Your task to perform on an android device: Open calendar and show me the fourth week of next month Image 0: 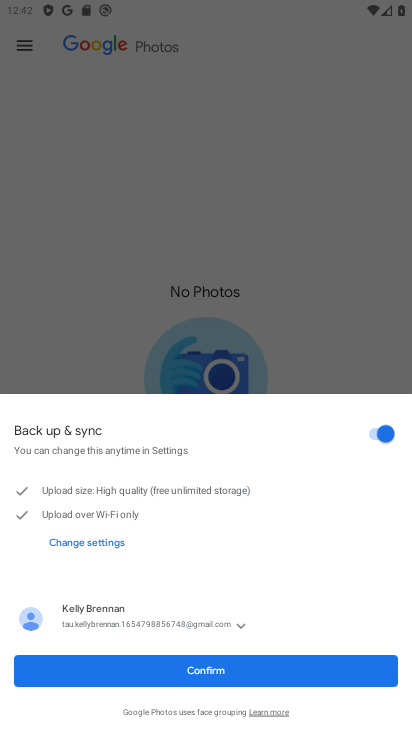
Step 0: press home button
Your task to perform on an android device: Open calendar and show me the fourth week of next month Image 1: 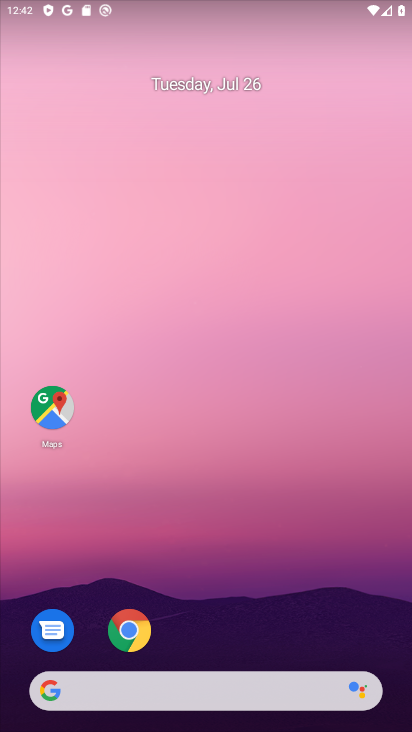
Step 1: drag from (186, 636) to (249, 155)
Your task to perform on an android device: Open calendar and show me the fourth week of next month Image 2: 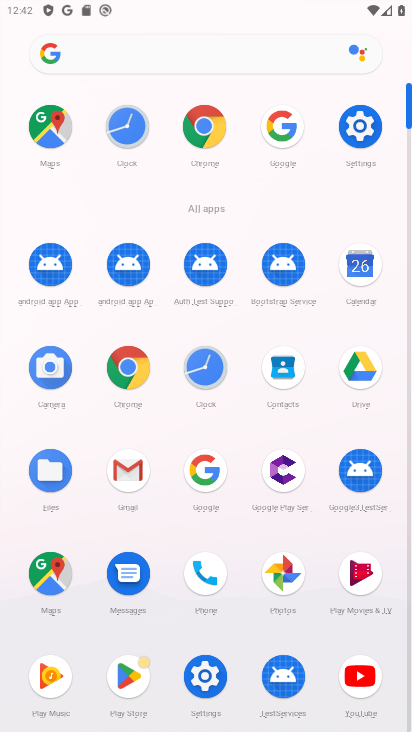
Step 2: click (352, 280)
Your task to perform on an android device: Open calendar and show me the fourth week of next month Image 3: 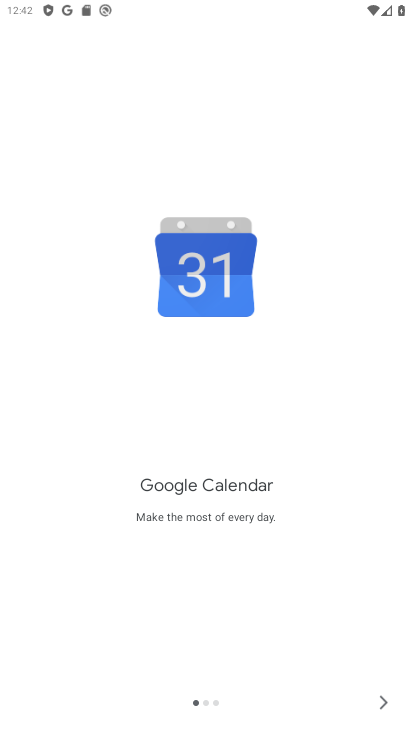
Step 3: click (384, 704)
Your task to perform on an android device: Open calendar and show me the fourth week of next month Image 4: 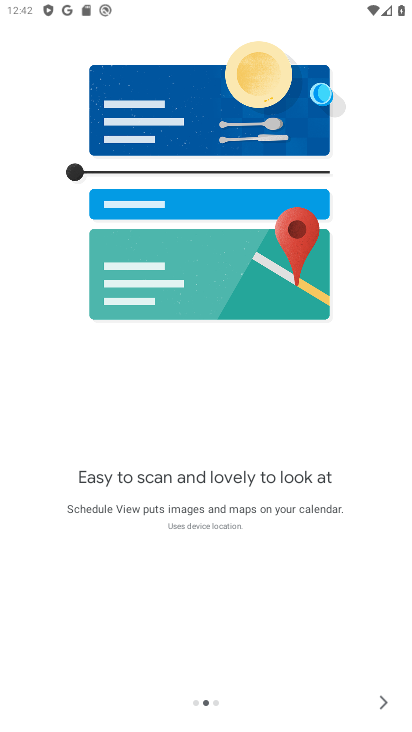
Step 4: click (384, 704)
Your task to perform on an android device: Open calendar and show me the fourth week of next month Image 5: 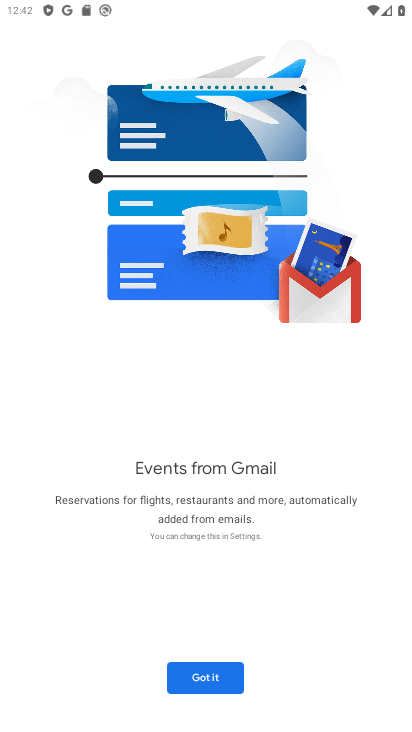
Step 5: click (384, 704)
Your task to perform on an android device: Open calendar and show me the fourth week of next month Image 6: 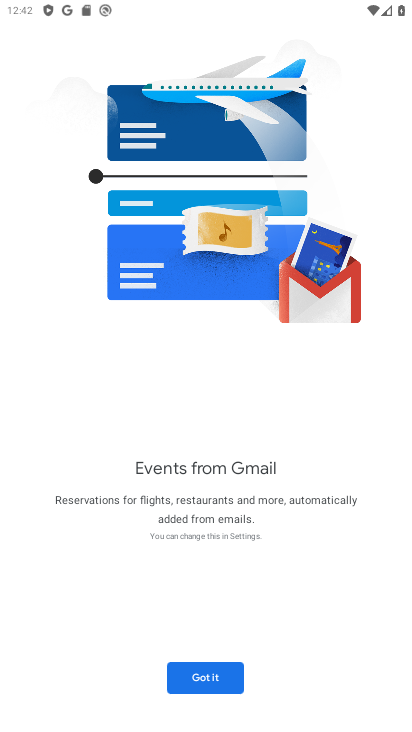
Step 6: click (208, 666)
Your task to perform on an android device: Open calendar and show me the fourth week of next month Image 7: 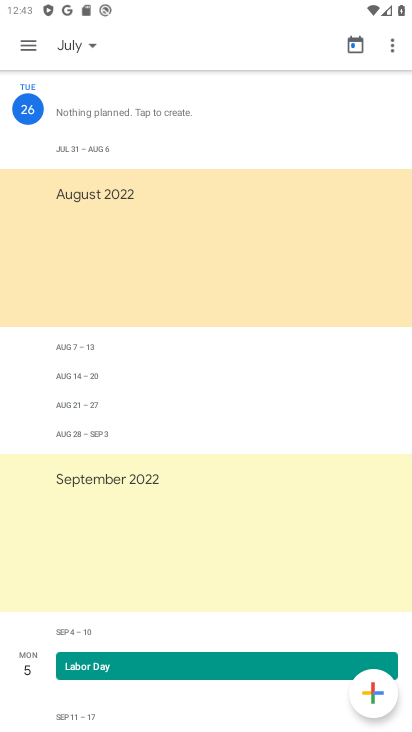
Step 7: click (27, 49)
Your task to perform on an android device: Open calendar and show me the fourth week of next month Image 8: 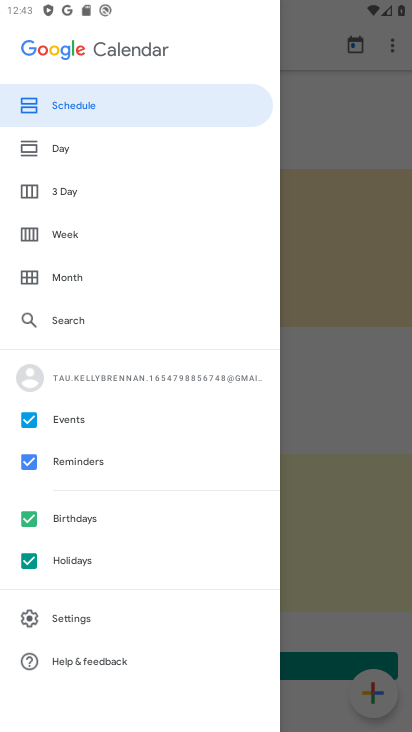
Step 8: click (52, 232)
Your task to perform on an android device: Open calendar and show me the fourth week of next month Image 9: 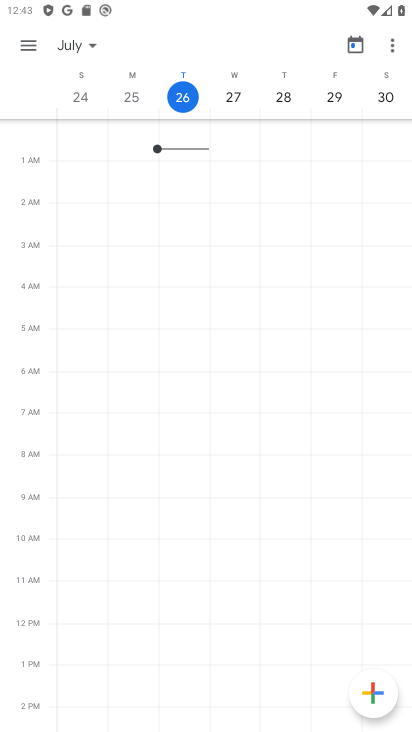
Step 9: click (70, 42)
Your task to perform on an android device: Open calendar and show me the fourth week of next month Image 10: 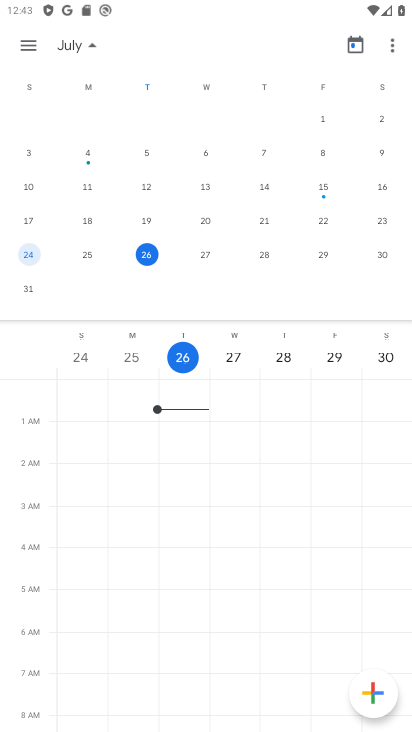
Step 10: click (73, 43)
Your task to perform on an android device: Open calendar and show me the fourth week of next month Image 11: 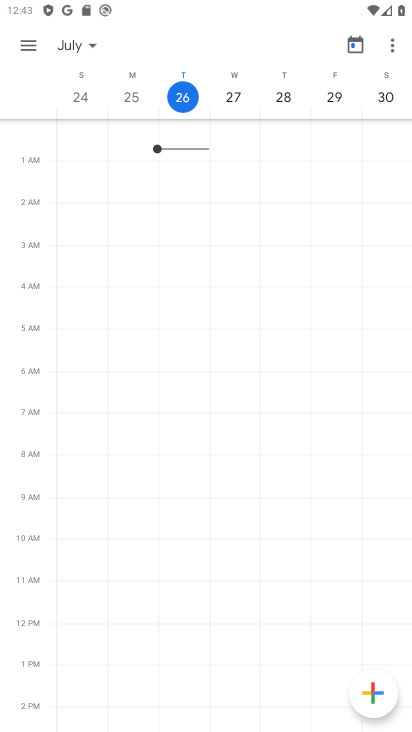
Step 11: click (73, 43)
Your task to perform on an android device: Open calendar and show me the fourth week of next month Image 12: 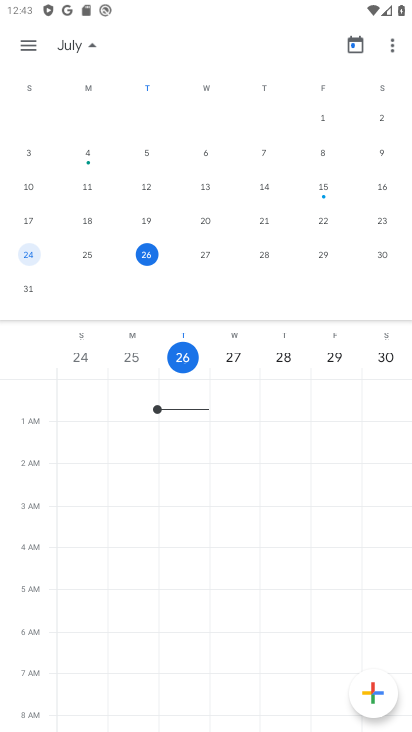
Step 12: drag from (336, 204) to (42, 192)
Your task to perform on an android device: Open calendar and show me the fourth week of next month Image 13: 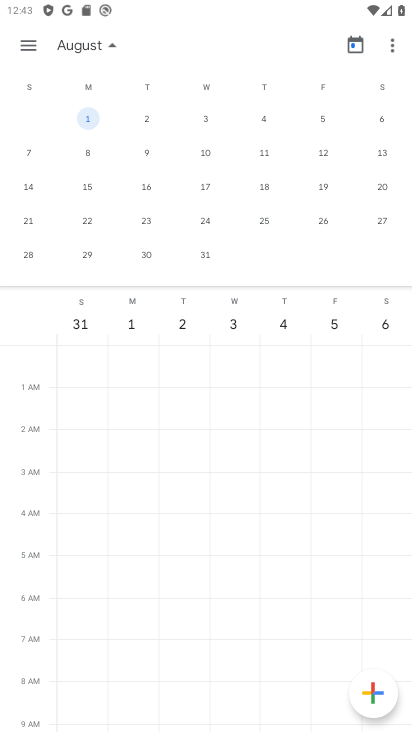
Step 13: click (24, 220)
Your task to perform on an android device: Open calendar and show me the fourth week of next month Image 14: 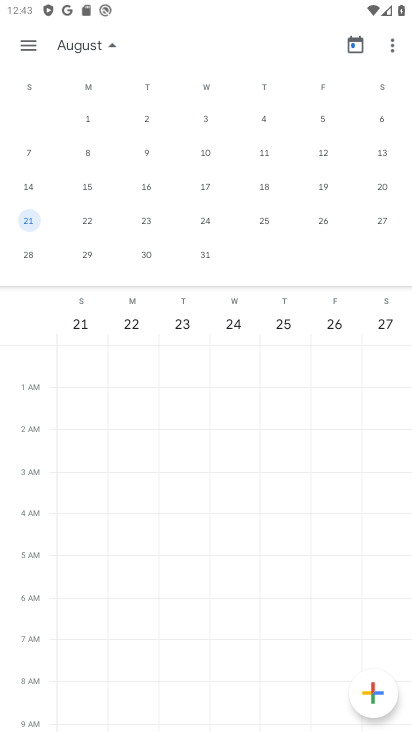
Step 14: task complete